Your task to perform on an android device: Set the phone to "Do not disturb". Image 0: 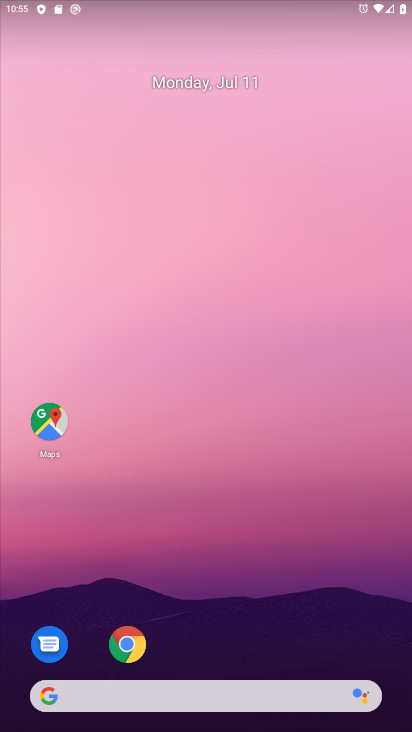
Step 0: drag from (247, 619) to (250, 55)
Your task to perform on an android device: Set the phone to "Do not disturb". Image 1: 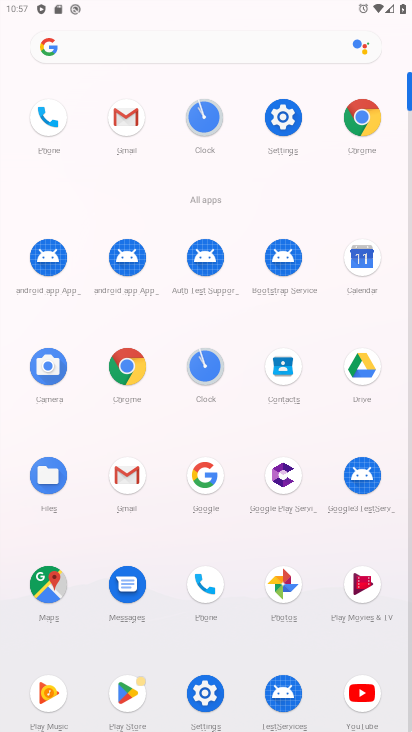
Step 1: drag from (351, 0) to (222, 550)
Your task to perform on an android device: Set the phone to "Do not disturb". Image 2: 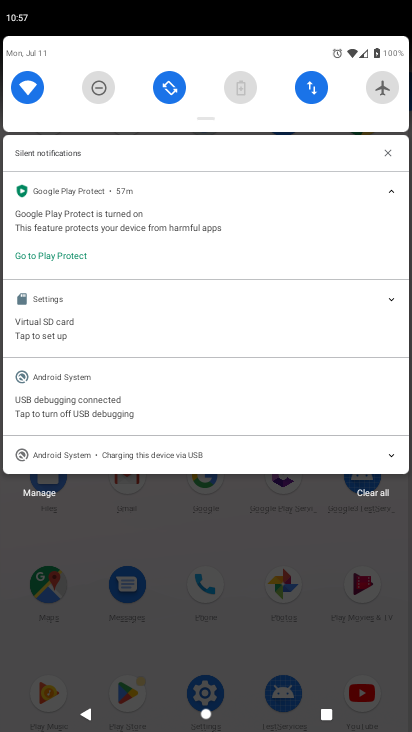
Step 2: click (103, 89)
Your task to perform on an android device: Set the phone to "Do not disturb". Image 3: 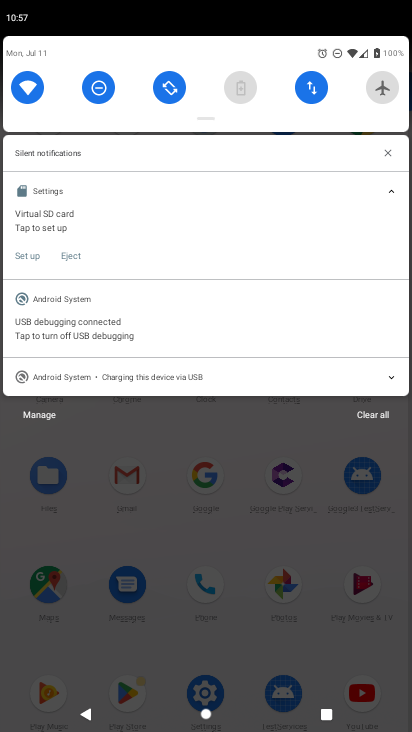
Step 3: task complete